Your task to perform on an android device: Open Android settings Image 0: 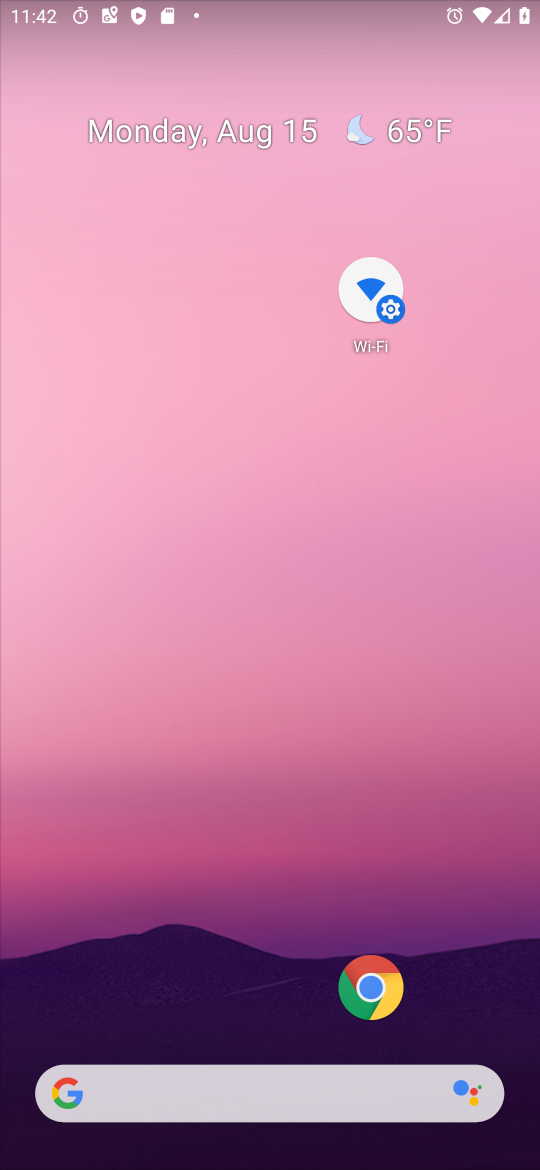
Step 0: drag from (253, 991) to (249, 51)
Your task to perform on an android device: Open Android settings Image 1: 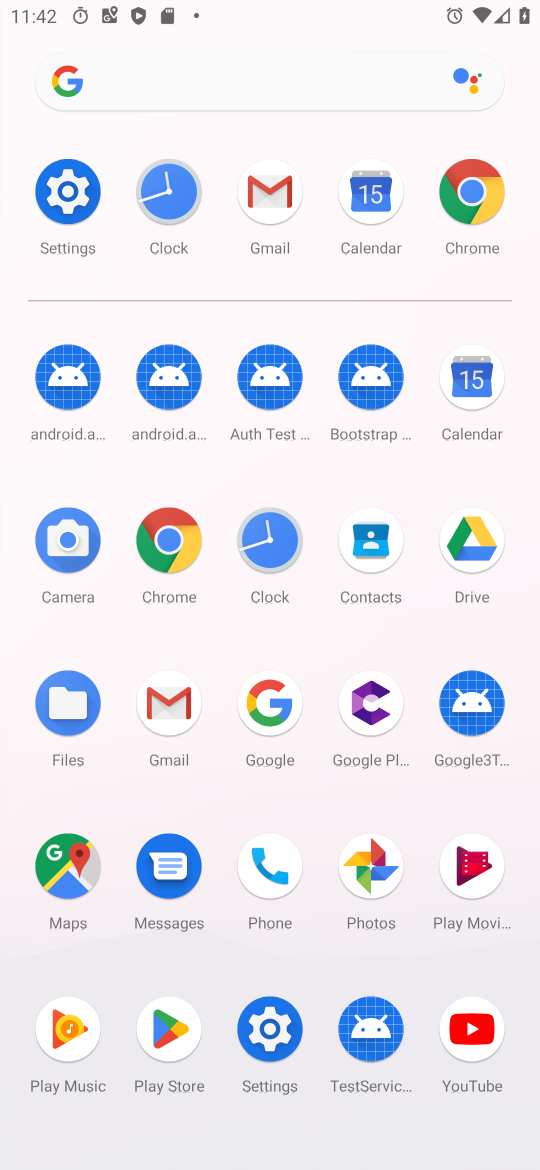
Step 1: click (235, 1029)
Your task to perform on an android device: Open Android settings Image 2: 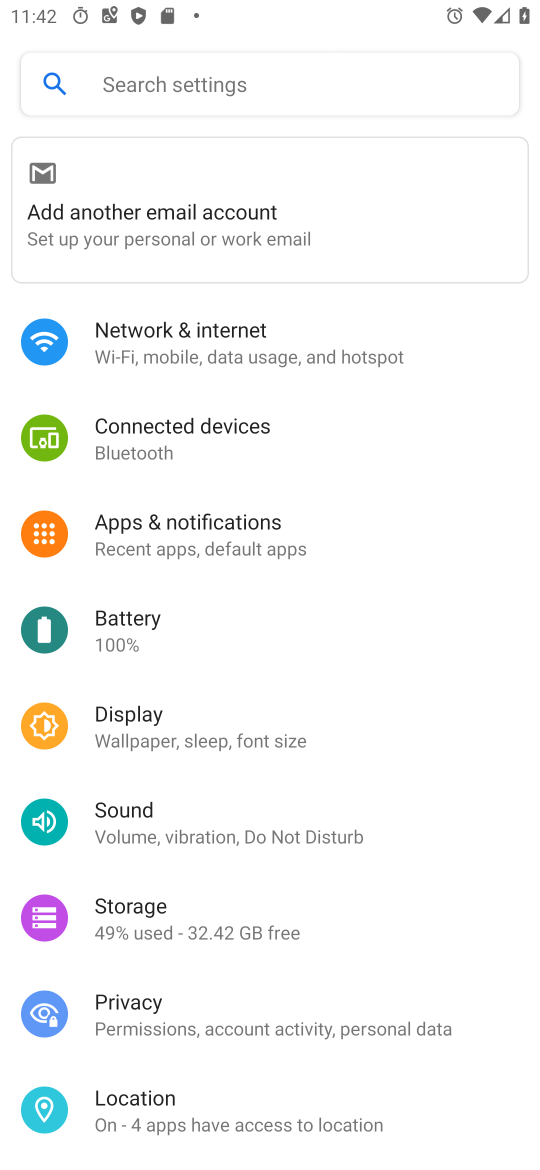
Step 2: task complete